Your task to perform on an android device: Go to Google Image 0: 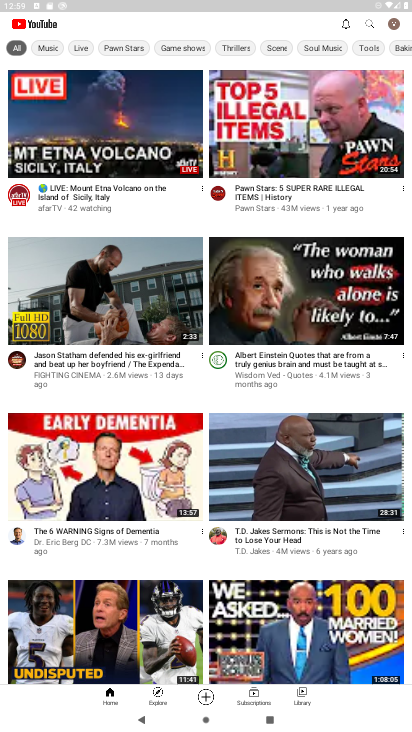
Step 0: press home button
Your task to perform on an android device: Go to Google Image 1: 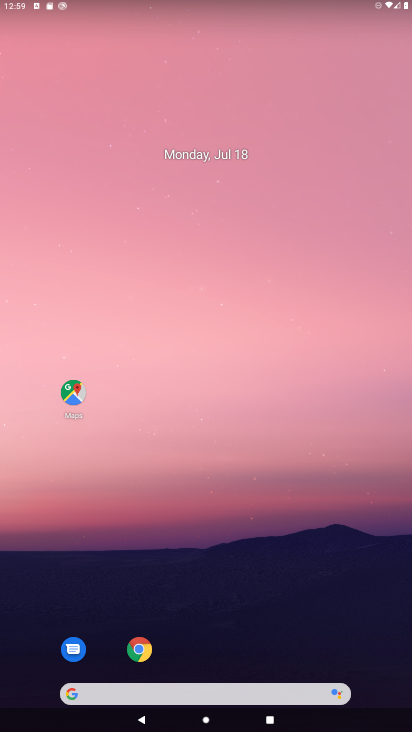
Step 1: click (139, 647)
Your task to perform on an android device: Go to Google Image 2: 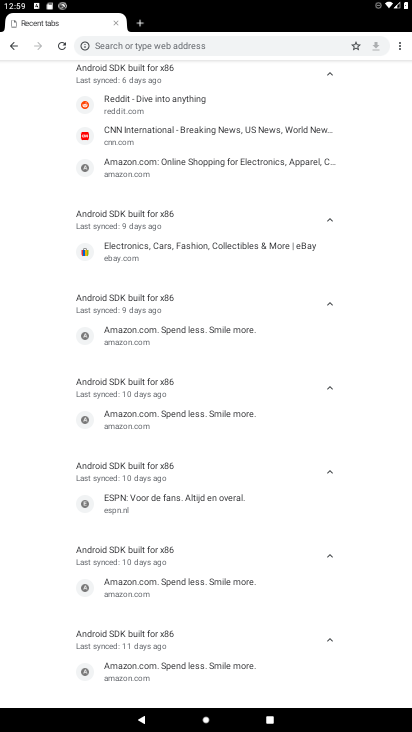
Step 2: task complete